Your task to perform on an android device: Open Google Maps Image 0: 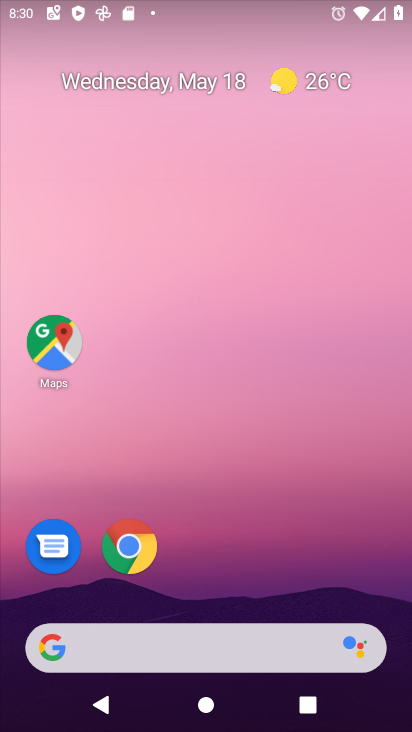
Step 0: drag from (349, 591) to (234, 3)
Your task to perform on an android device: Open Google Maps Image 1: 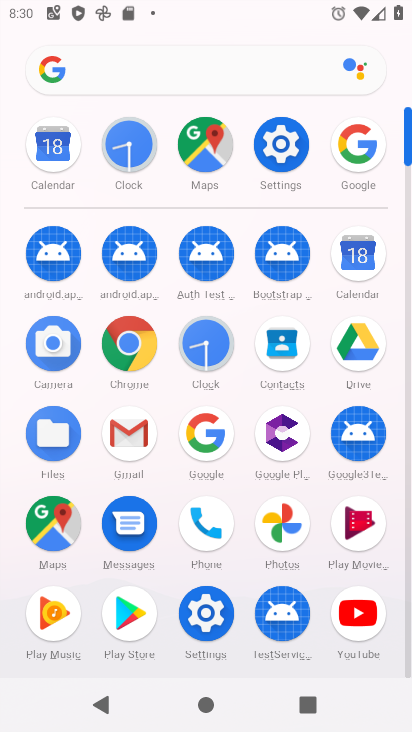
Step 1: click (33, 528)
Your task to perform on an android device: Open Google Maps Image 2: 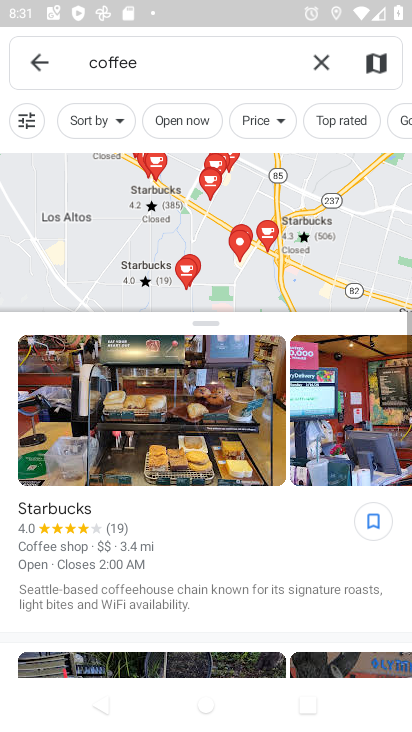
Step 2: click (327, 65)
Your task to perform on an android device: Open Google Maps Image 3: 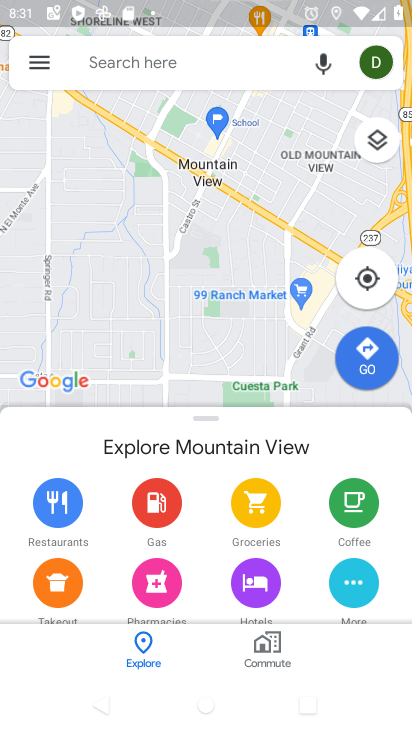
Step 3: task complete